Your task to perform on an android device: turn off picture-in-picture Image 0: 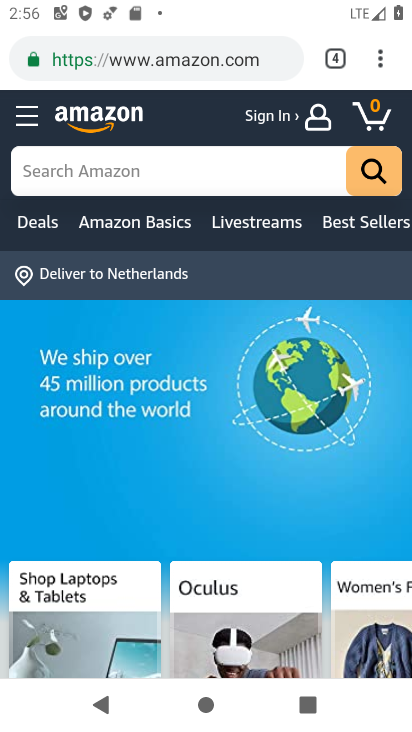
Step 0: press home button
Your task to perform on an android device: turn off picture-in-picture Image 1: 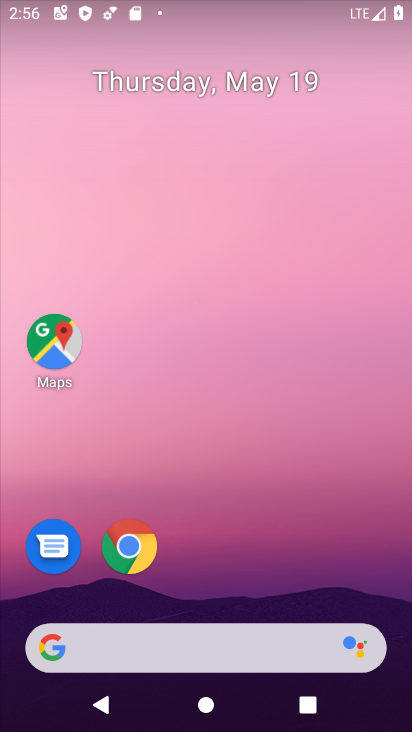
Step 1: drag from (122, 546) to (270, 355)
Your task to perform on an android device: turn off picture-in-picture Image 2: 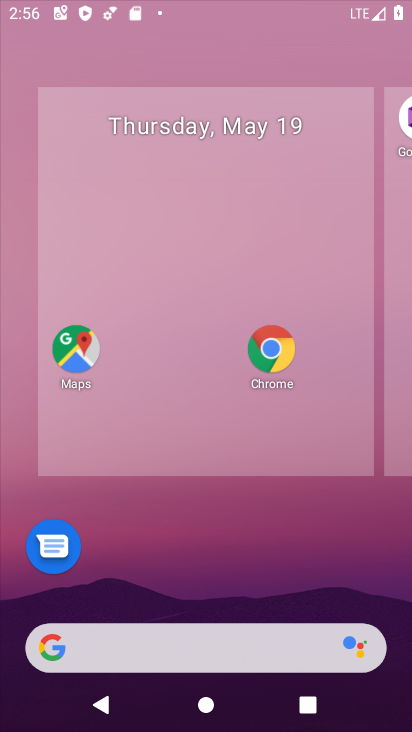
Step 2: drag from (280, 354) to (219, 151)
Your task to perform on an android device: turn off picture-in-picture Image 3: 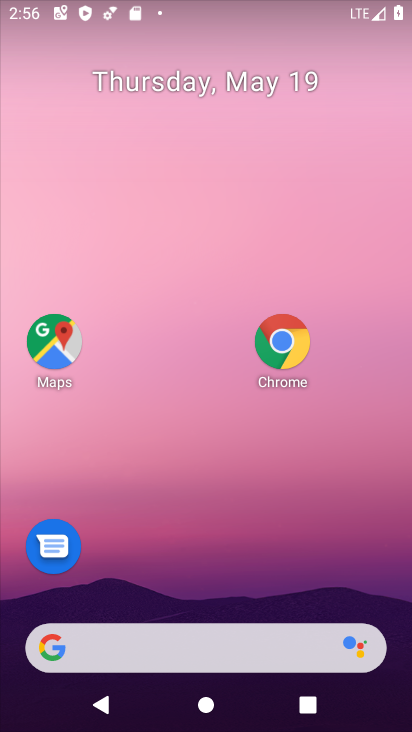
Step 3: click (291, 340)
Your task to perform on an android device: turn off picture-in-picture Image 4: 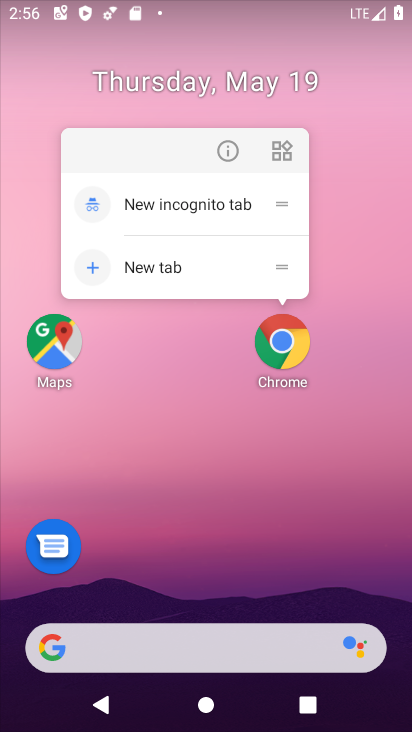
Step 4: click (233, 161)
Your task to perform on an android device: turn off picture-in-picture Image 5: 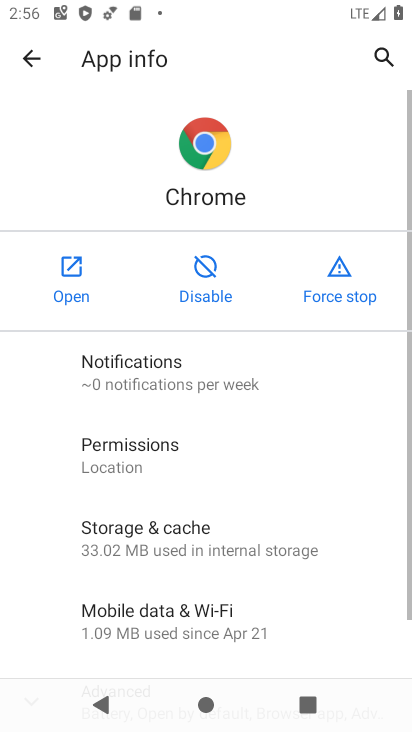
Step 5: drag from (194, 662) to (396, 89)
Your task to perform on an android device: turn off picture-in-picture Image 6: 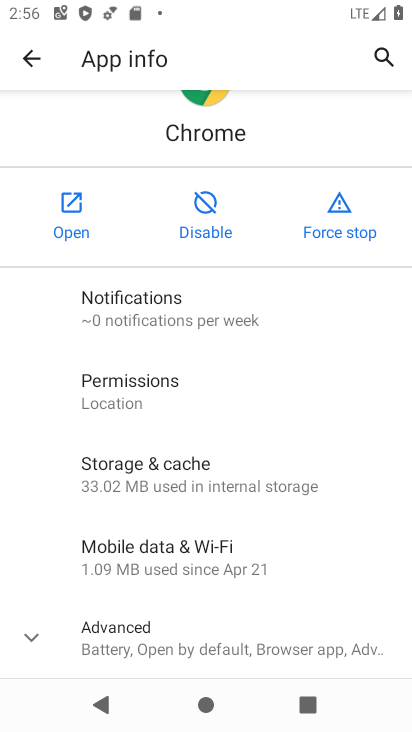
Step 6: click (158, 626)
Your task to perform on an android device: turn off picture-in-picture Image 7: 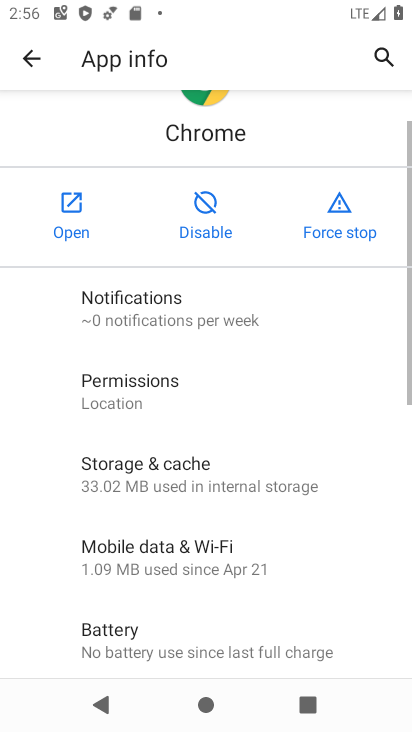
Step 7: drag from (179, 625) to (353, 94)
Your task to perform on an android device: turn off picture-in-picture Image 8: 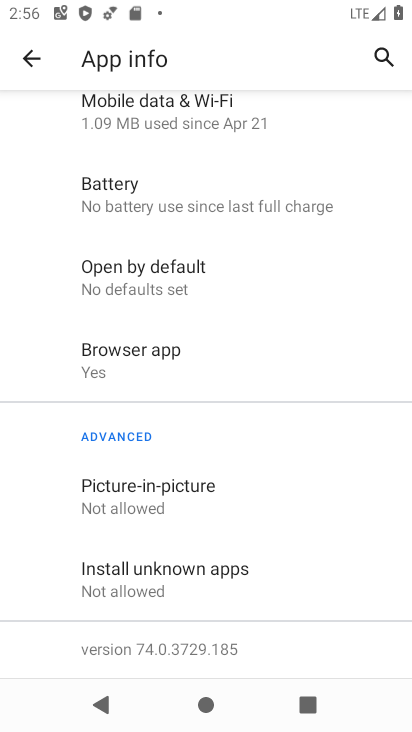
Step 8: click (167, 493)
Your task to perform on an android device: turn off picture-in-picture Image 9: 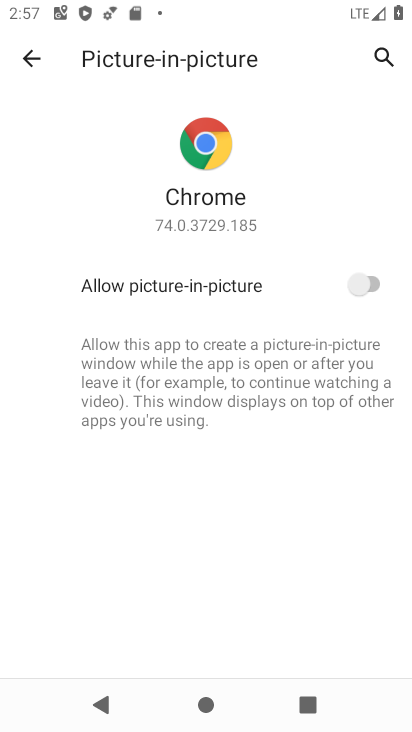
Step 9: task complete